Your task to perform on an android device: stop showing notifications on the lock screen Image 0: 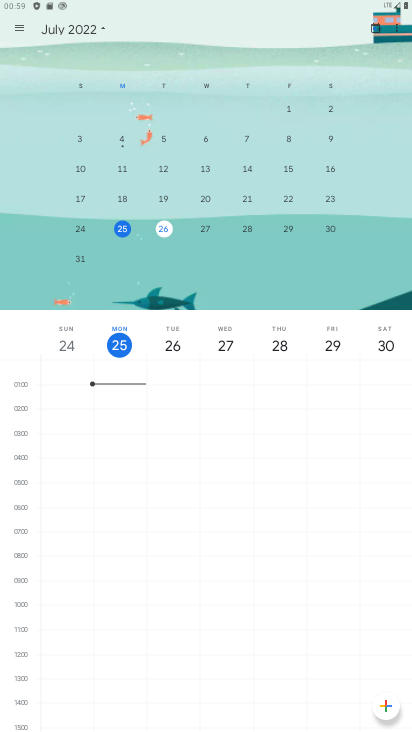
Step 0: press home button
Your task to perform on an android device: stop showing notifications on the lock screen Image 1: 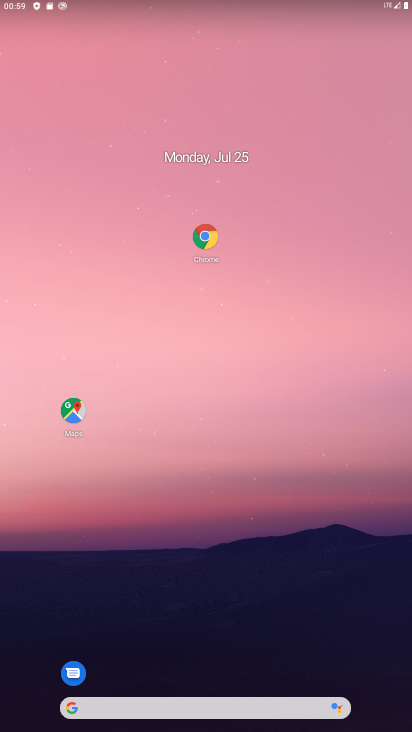
Step 1: drag from (161, 717) to (214, 51)
Your task to perform on an android device: stop showing notifications on the lock screen Image 2: 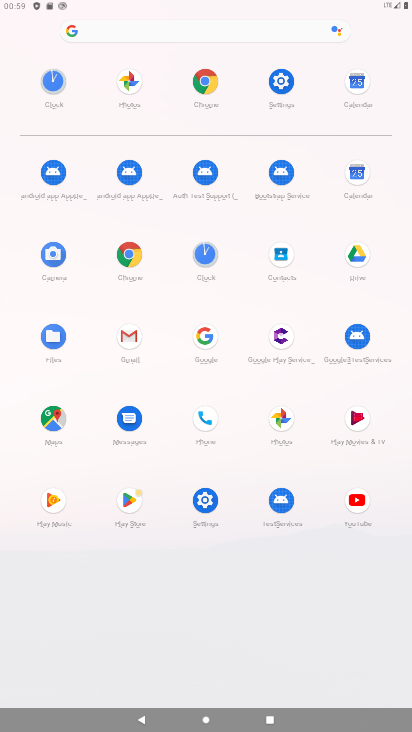
Step 2: click (281, 80)
Your task to perform on an android device: stop showing notifications on the lock screen Image 3: 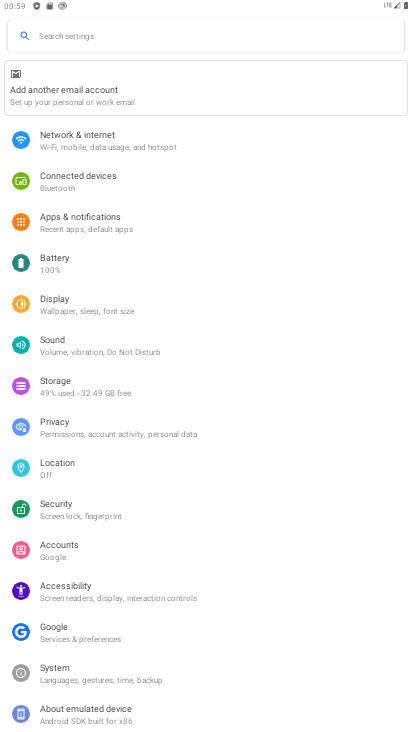
Step 3: click (132, 216)
Your task to perform on an android device: stop showing notifications on the lock screen Image 4: 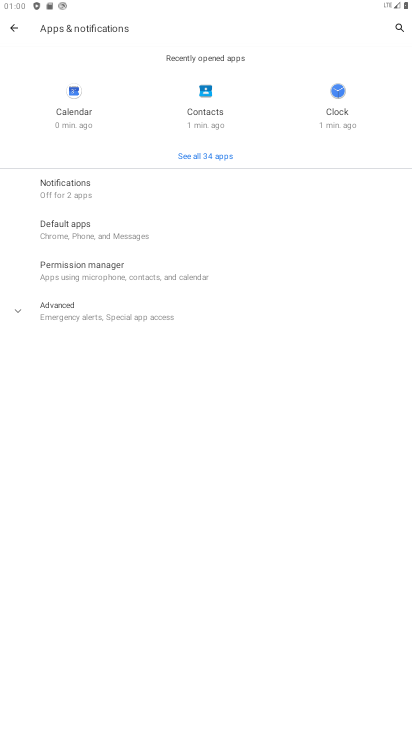
Step 4: click (64, 193)
Your task to perform on an android device: stop showing notifications on the lock screen Image 5: 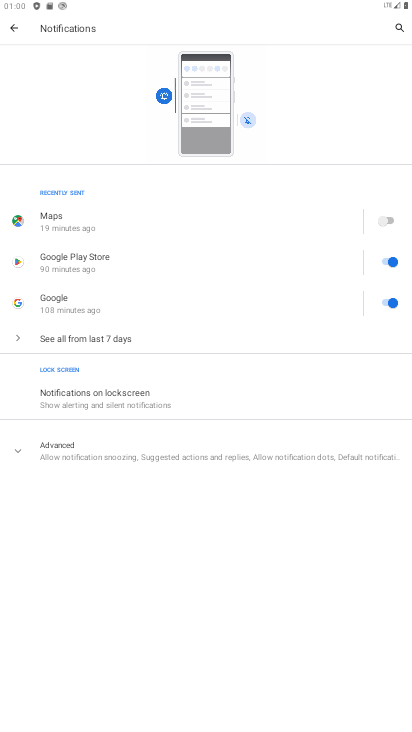
Step 5: click (131, 396)
Your task to perform on an android device: stop showing notifications on the lock screen Image 6: 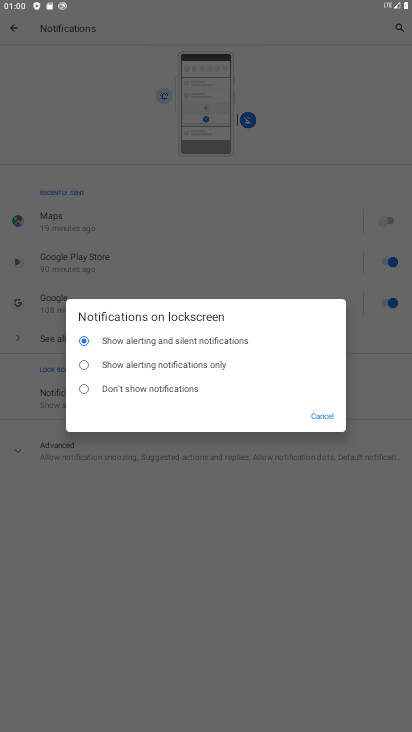
Step 6: click (83, 391)
Your task to perform on an android device: stop showing notifications on the lock screen Image 7: 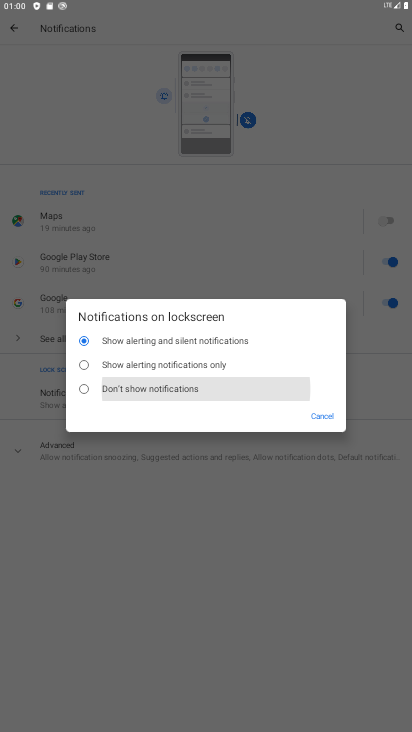
Step 7: task complete